Your task to perform on an android device: Open Google Maps Image 0: 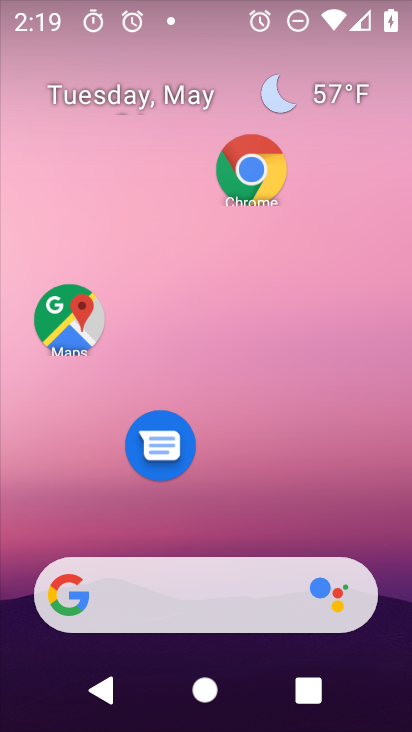
Step 0: drag from (204, 727) to (165, 46)
Your task to perform on an android device: Open Google Maps Image 1: 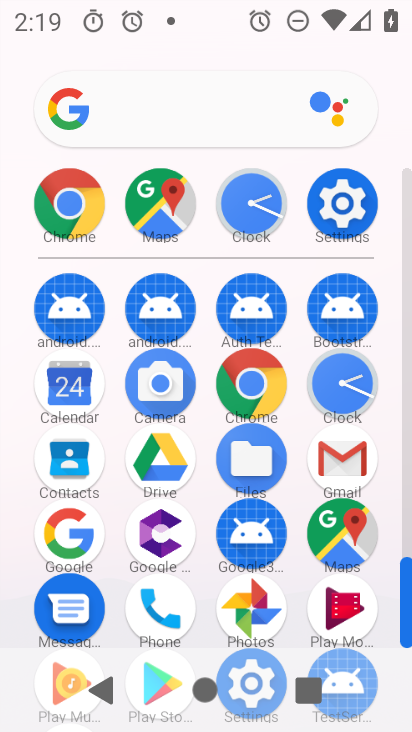
Step 1: click (355, 524)
Your task to perform on an android device: Open Google Maps Image 2: 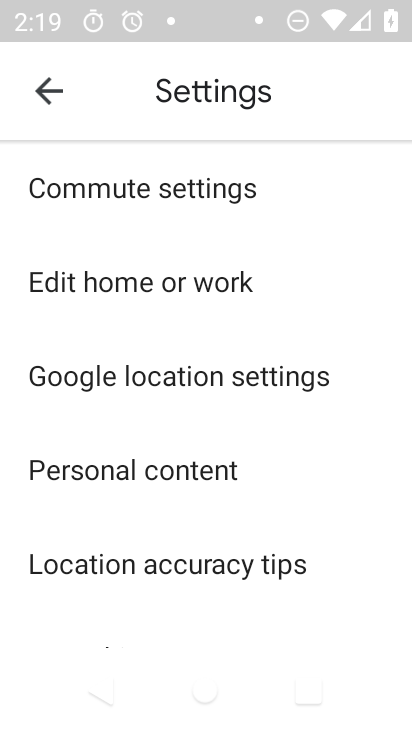
Step 2: click (46, 73)
Your task to perform on an android device: Open Google Maps Image 3: 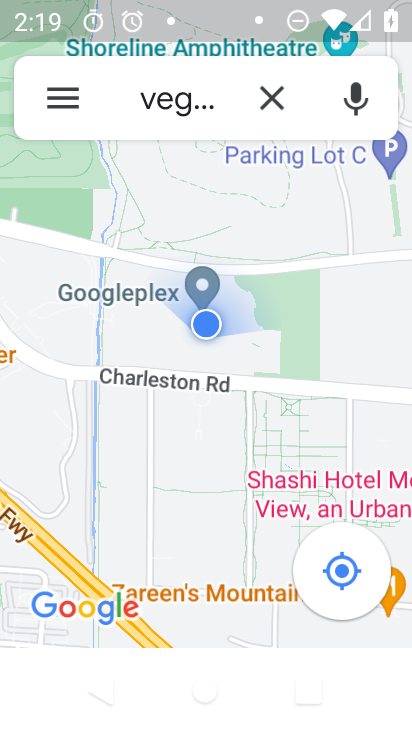
Step 3: task complete